Your task to perform on an android device: Open Maps and search for coffee Image 0: 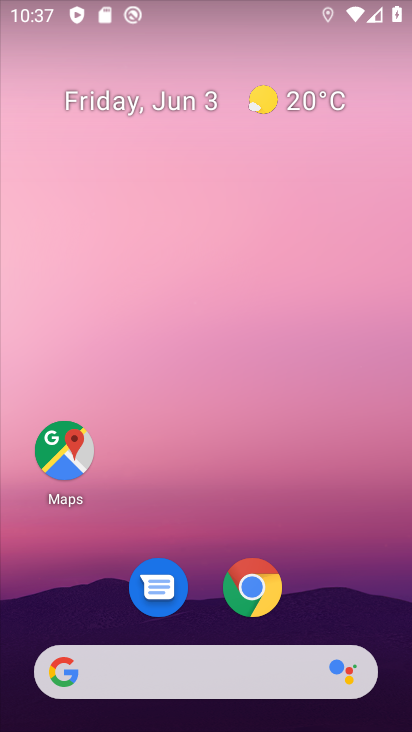
Step 0: click (72, 452)
Your task to perform on an android device: Open Maps and search for coffee Image 1: 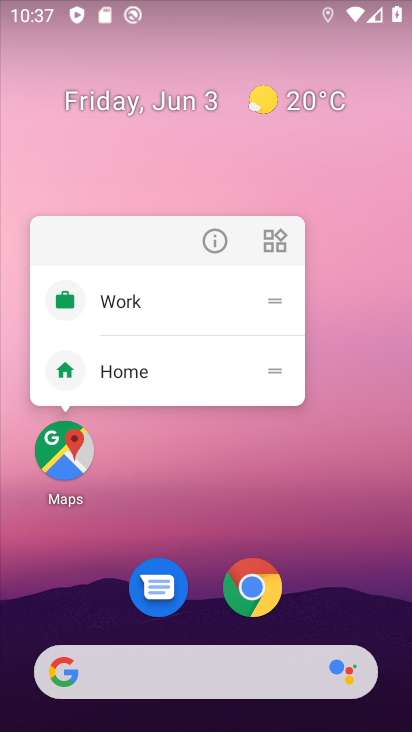
Step 1: click (56, 447)
Your task to perform on an android device: Open Maps and search for coffee Image 2: 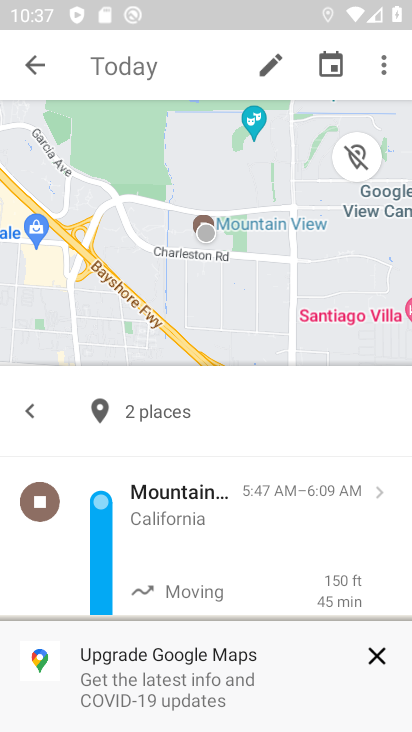
Step 2: click (31, 63)
Your task to perform on an android device: Open Maps and search for coffee Image 3: 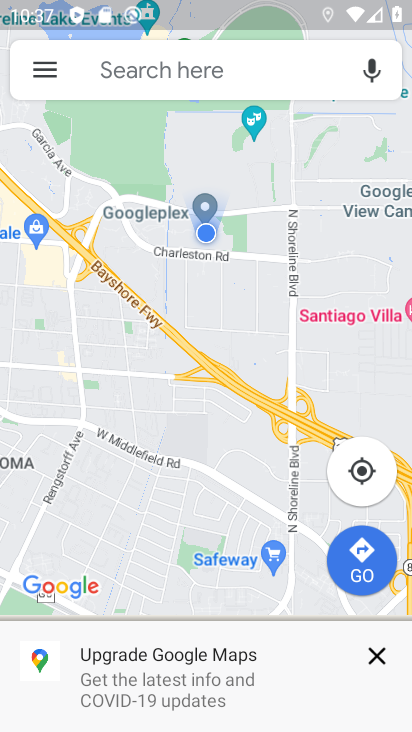
Step 3: click (180, 66)
Your task to perform on an android device: Open Maps and search for coffee Image 4: 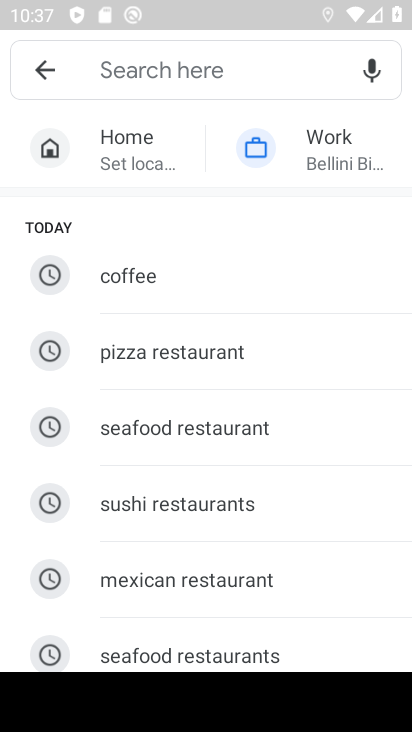
Step 4: type "coffee"
Your task to perform on an android device: Open Maps and search for coffee Image 5: 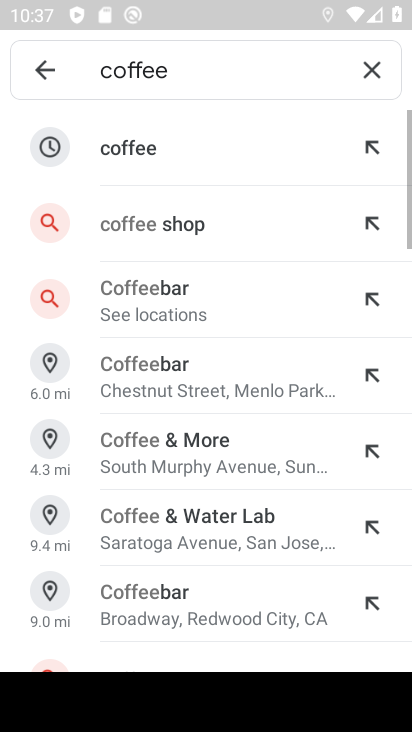
Step 5: click (217, 161)
Your task to perform on an android device: Open Maps and search for coffee Image 6: 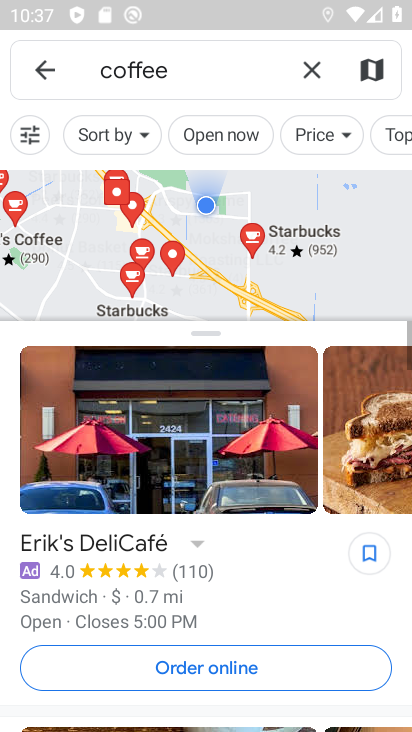
Step 6: task complete